Your task to perform on an android device: toggle airplane mode Image 0: 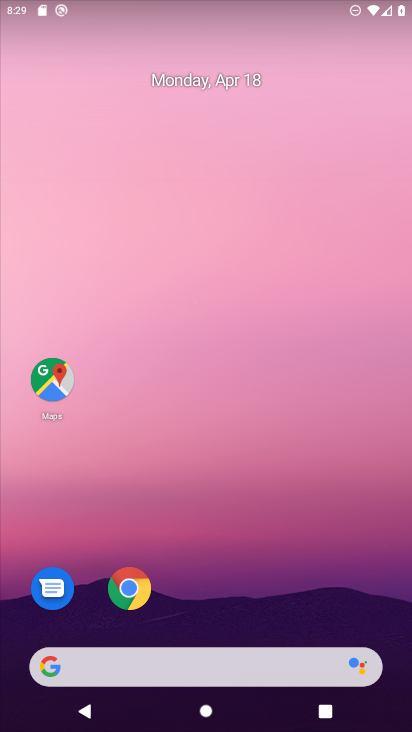
Step 0: drag from (256, 570) to (244, 51)
Your task to perform on an android device: toggle airplane mode Image 1: 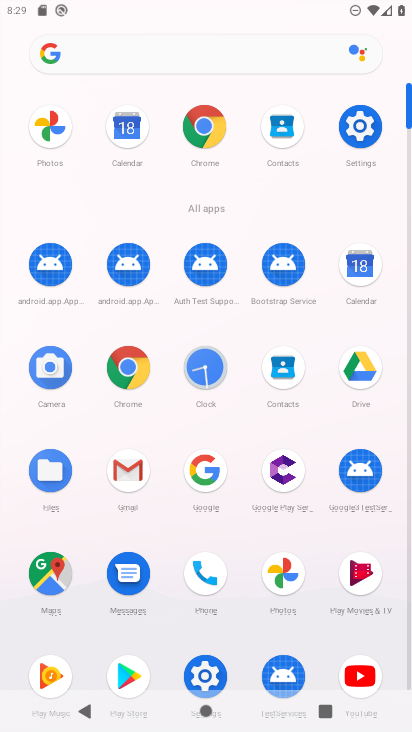
Step 1: click (359, 122)
Your task to perform on an android device: toggle airplane mode Image 2: 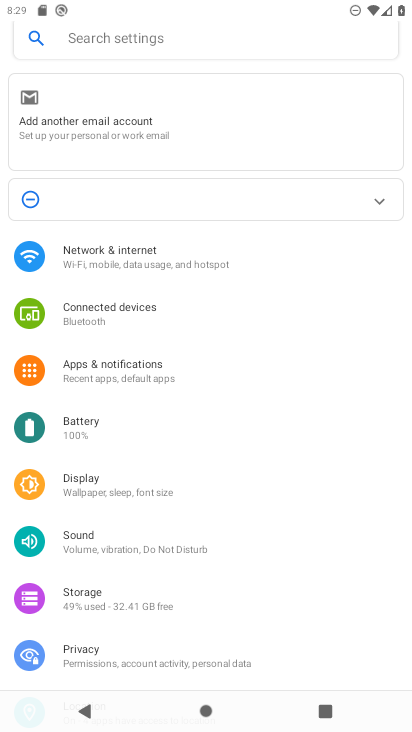
Step 2: click (133, 265)
Your task to perform on an android device: toggle airplane mode Image 3: 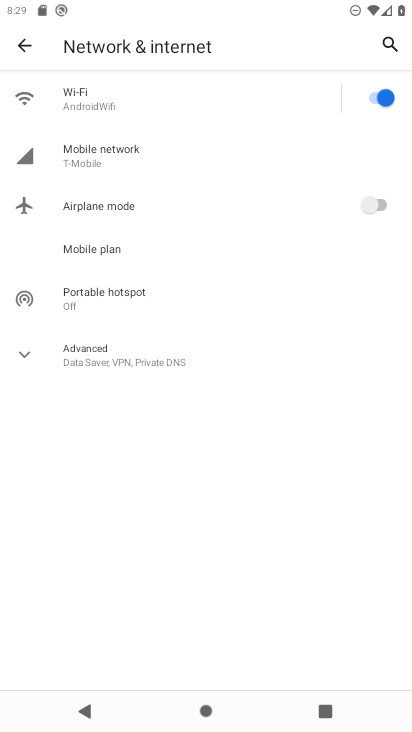
Step 3: click (372, 203)
Your task to perform on an android device: toggle airplane mode Image 4: 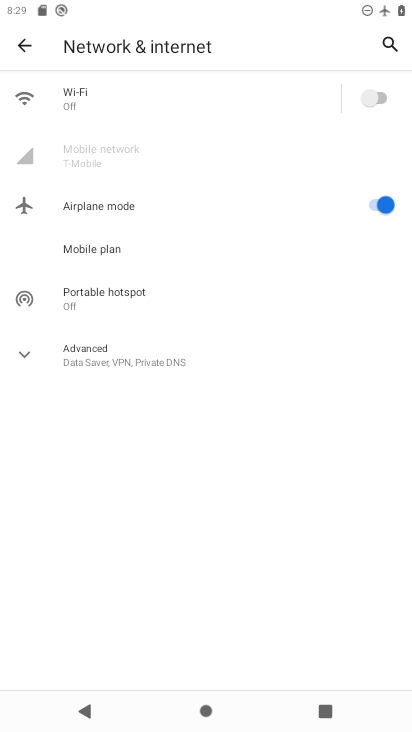
Step 4: task complete